Your task to perform on an android device: open app "DoorDash - Dasher" (install if not already installed) Image 0: 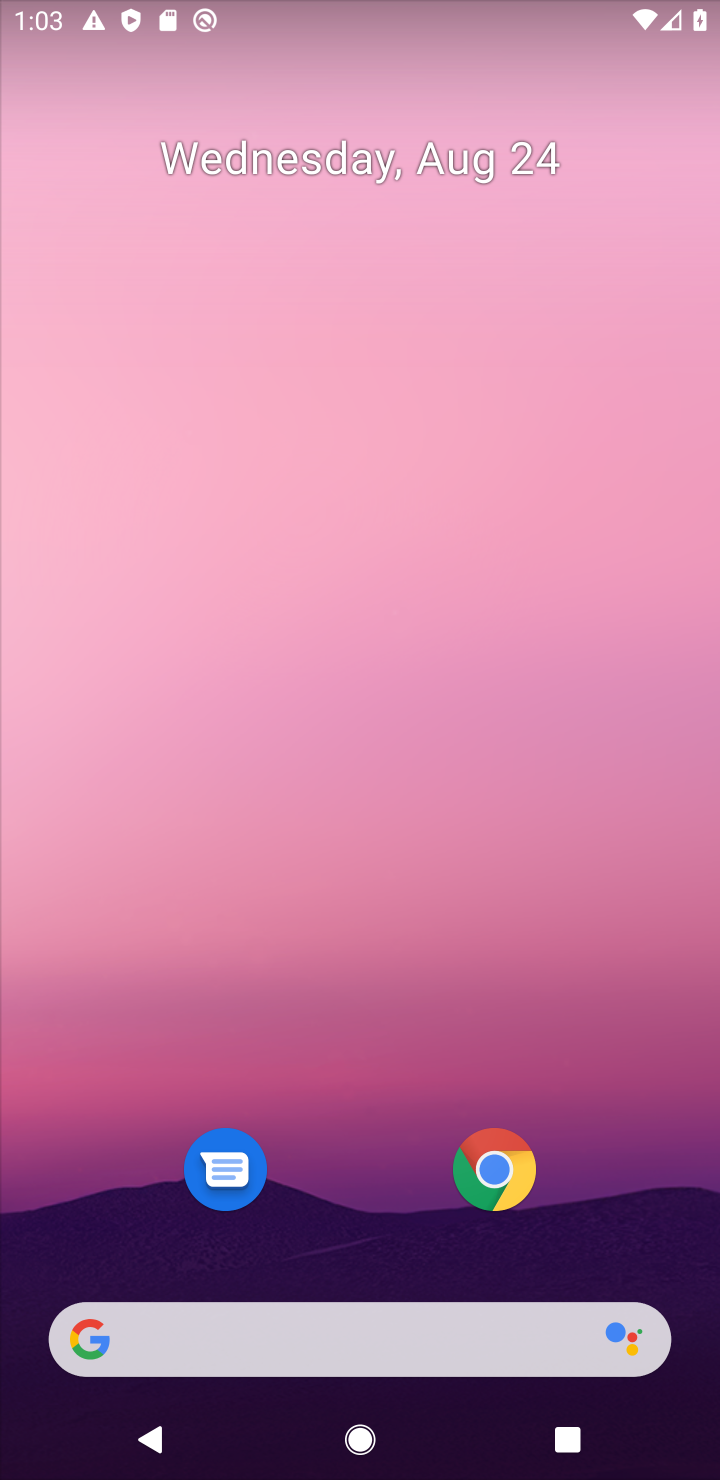
Step 0: drag from (442, 970) to (576, 108)
Your task to perform on an android device: open app "DoorDash - Dasher" (install if not already installed) Image 1: 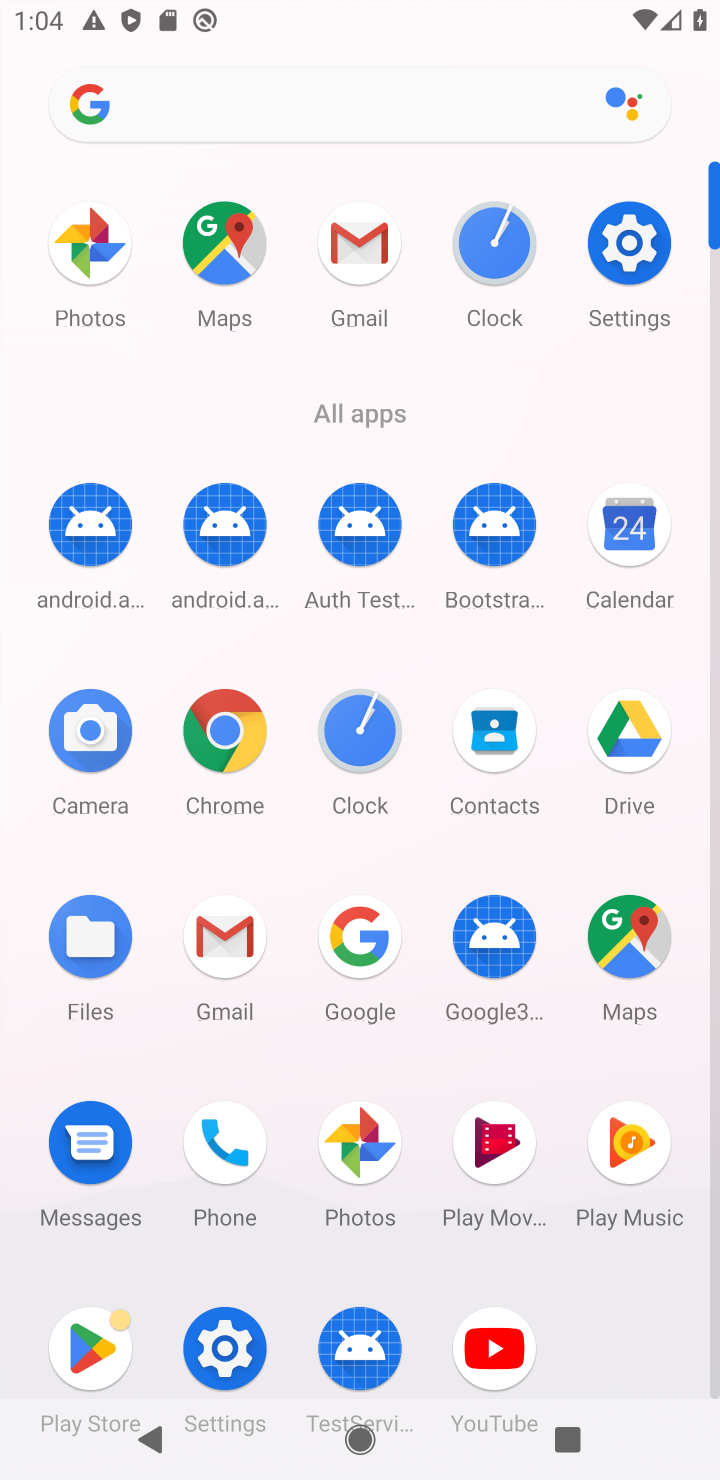
Step 1: click (101, 1340)
Your task to perform on an android device: open app "DoorDash - Dasher" (install if not already installed) Image 2: 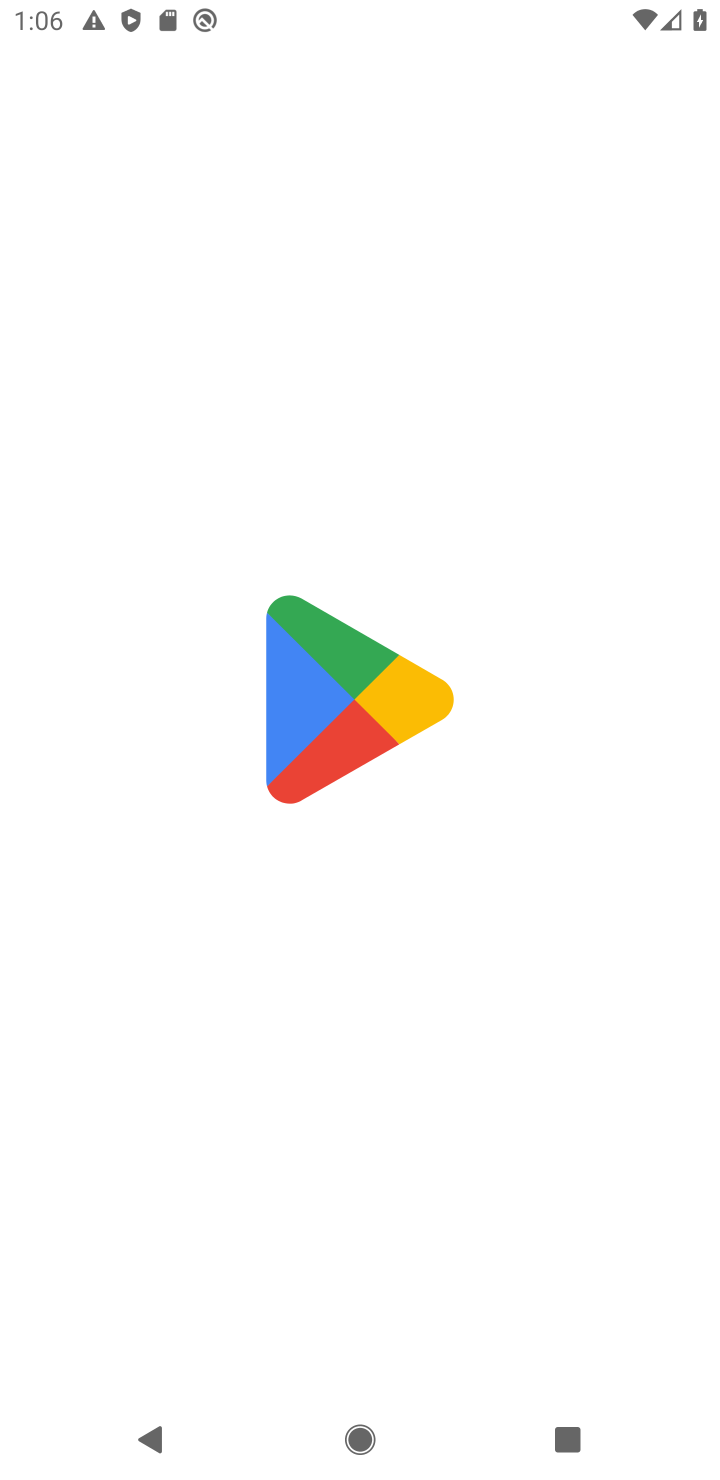
Step 2: task complete